Your task to perform on an android device: remove spam from my inbox in the gmail app Image 0: 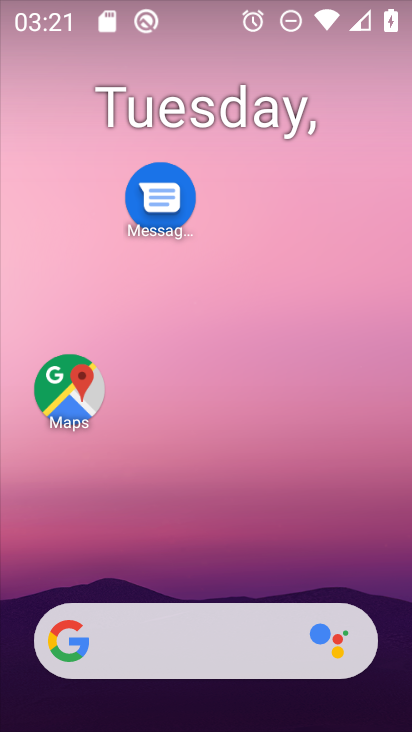
Step 0: drag from (228, 542) to (283, 122)
Your task to perform on an android device: remove spam from my inbox in the gmail app Image 1: 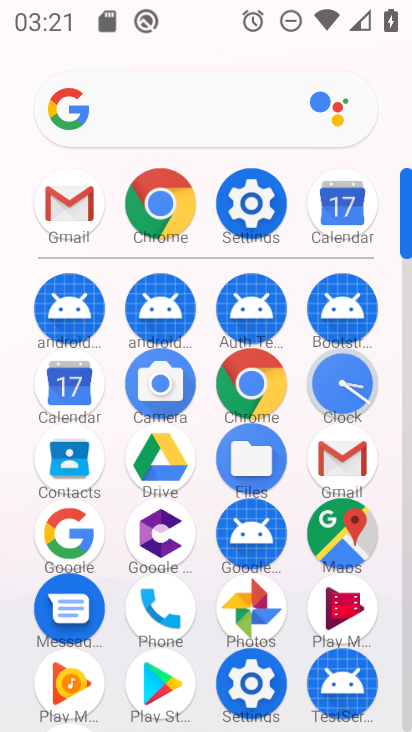
Step 1: click (335, 466)
Your task to perform on an android device: remove spam from my inbox in the gmail app Image 2: 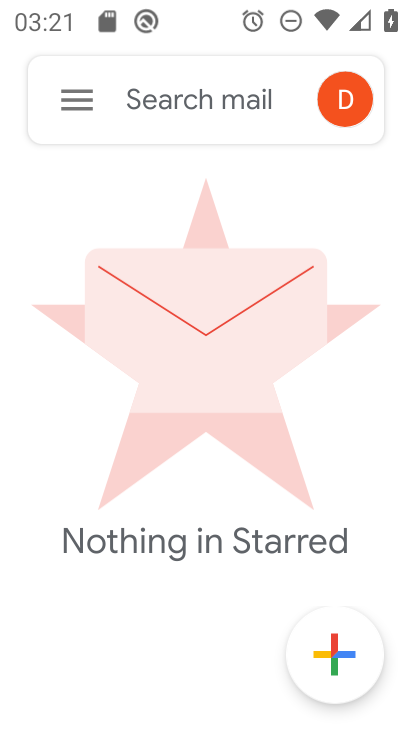
Step 2: click (82, 95)
Your task to perform on an android device: remove spam from my inbox in the gmail app Image 3: 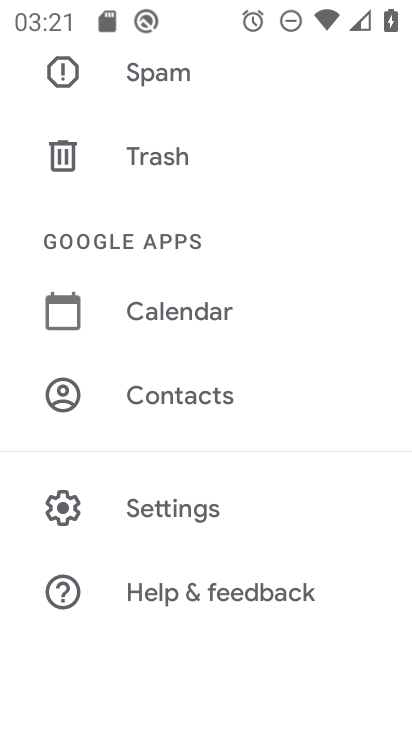
Step 3: click (175, 77)
Your task to perform on an android device: remove spam from my inbox in the gmail app Image 4: 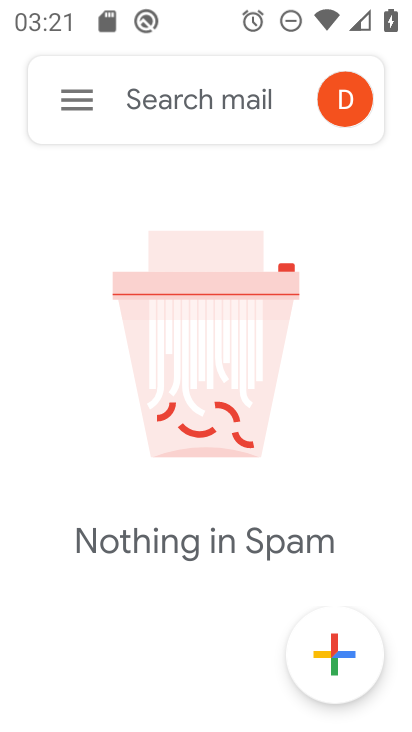
Step 4: click (62, 93)
Your task to perform on an android device: remove spam from my inbox in the gmail app Image 5: 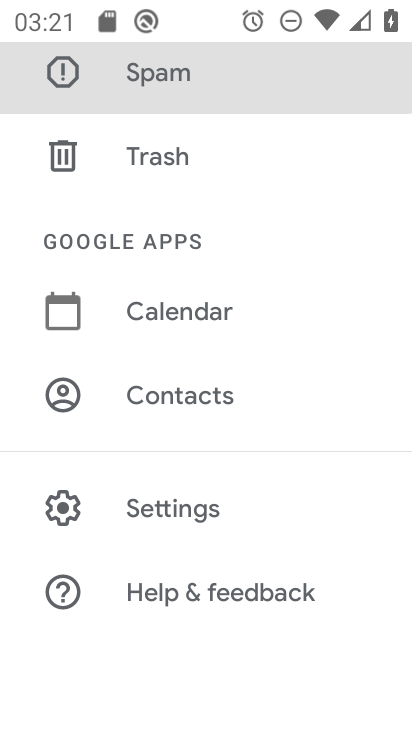
Step 5: click (183, 93)
Your task to perform on an android device: remove spam from my inbox in the gmail app Image 6: 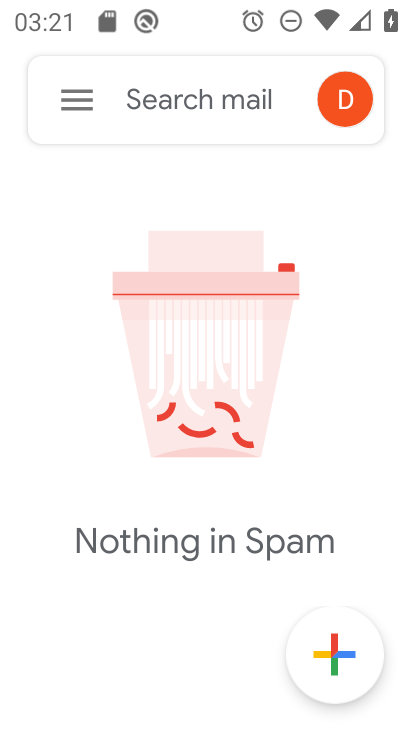
Step 6: task complete